Your task to perform on an android device: install app "Google Keep" Image 0: 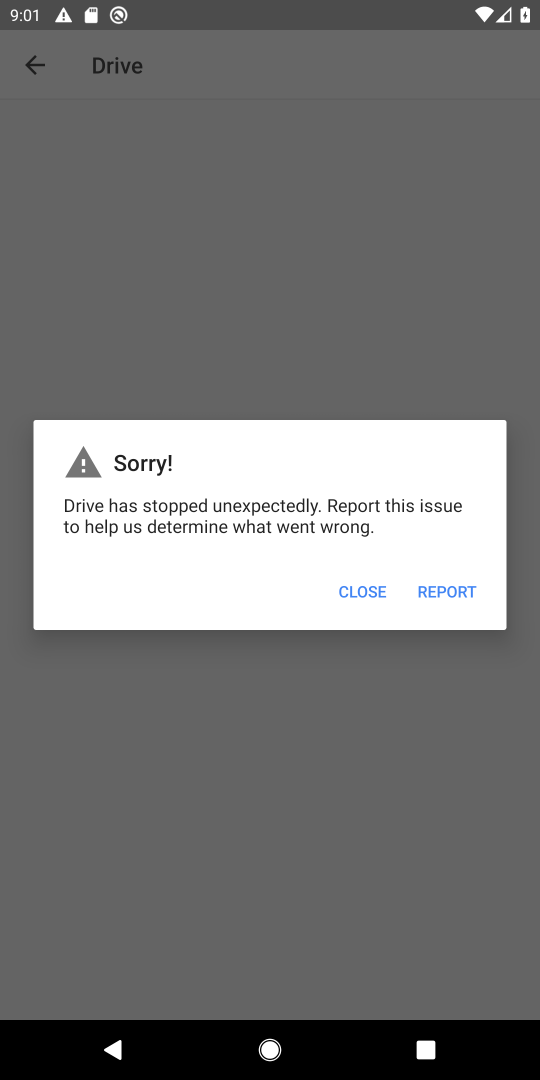
Step 0: press home button
Your task to perform on an android device: install app "Google Keep" Image 1: 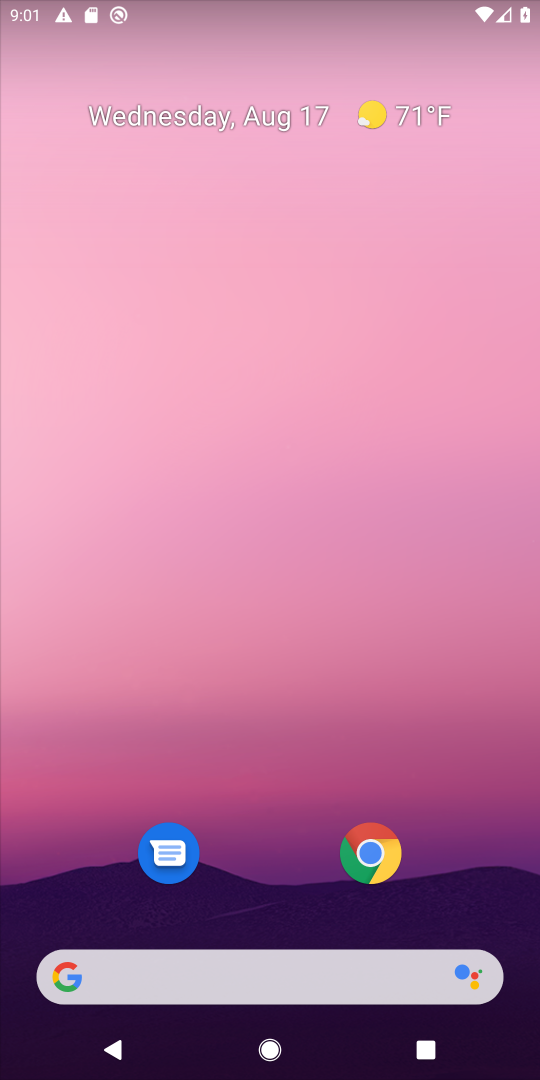
Step 1: drag from (258, 857) to (277, 156)
Your task to perform on an android device: install app "Google Keep" Image 2: 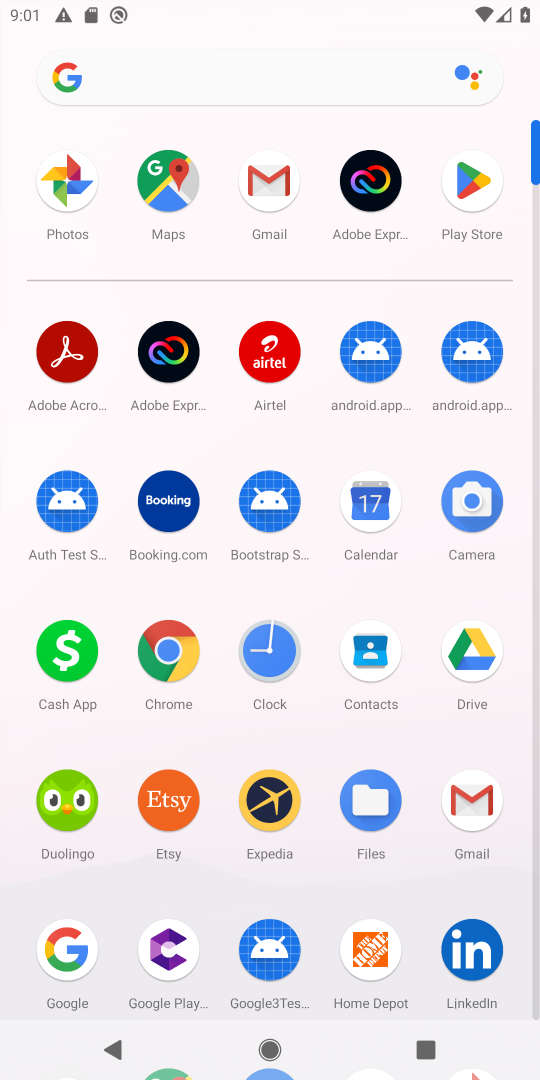
Step 2: click (473, 175)
Your task to perform on an android device: install app "Google Keep" Image 3: 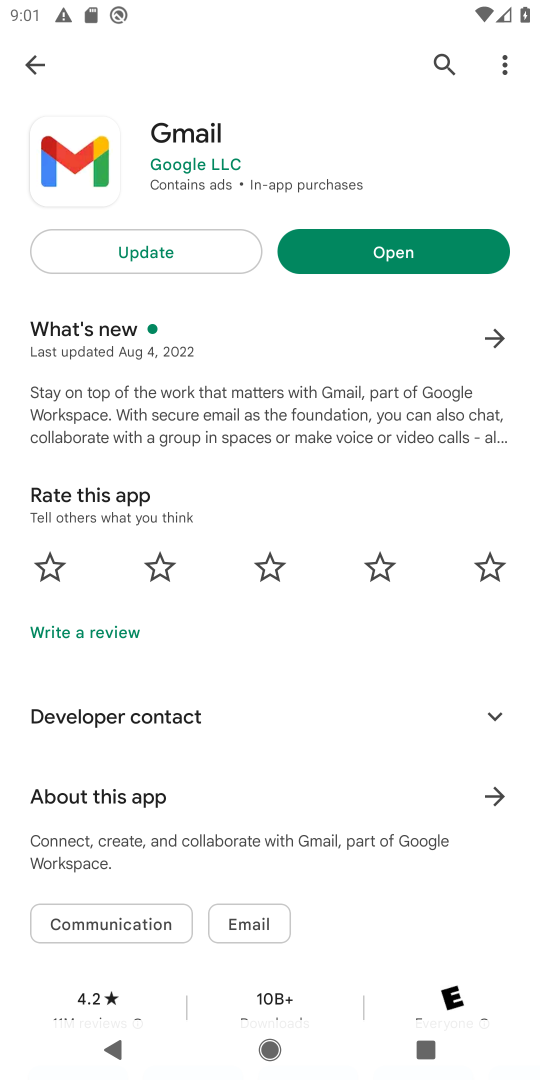
Step 3: click (447, 53)
Your task to perform on an android device: install app "Google Keep" Image 4: 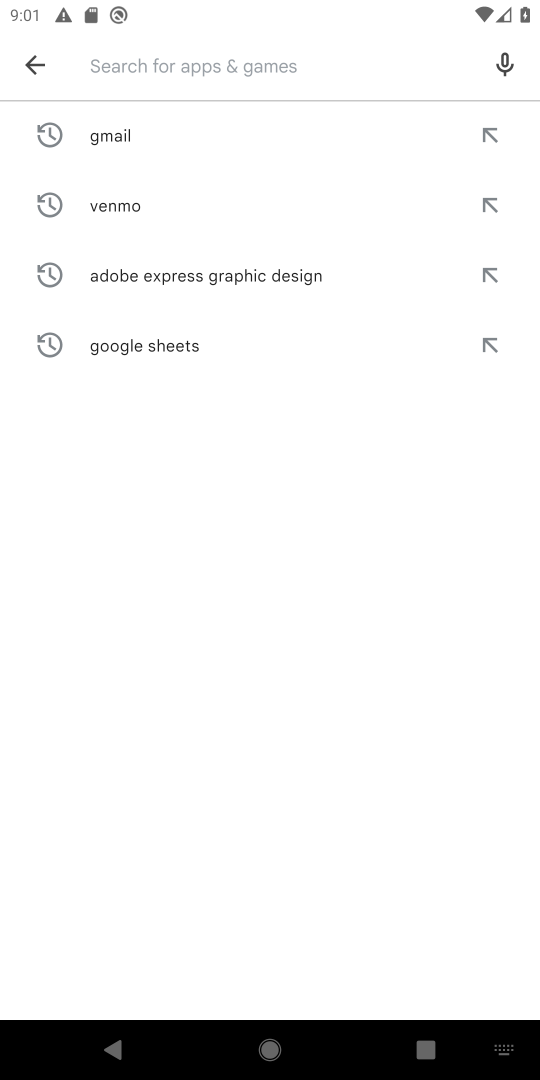
Step 4: type "Google Keep"
Your task to perform on an android device: install app "Google Keep" Image 5: 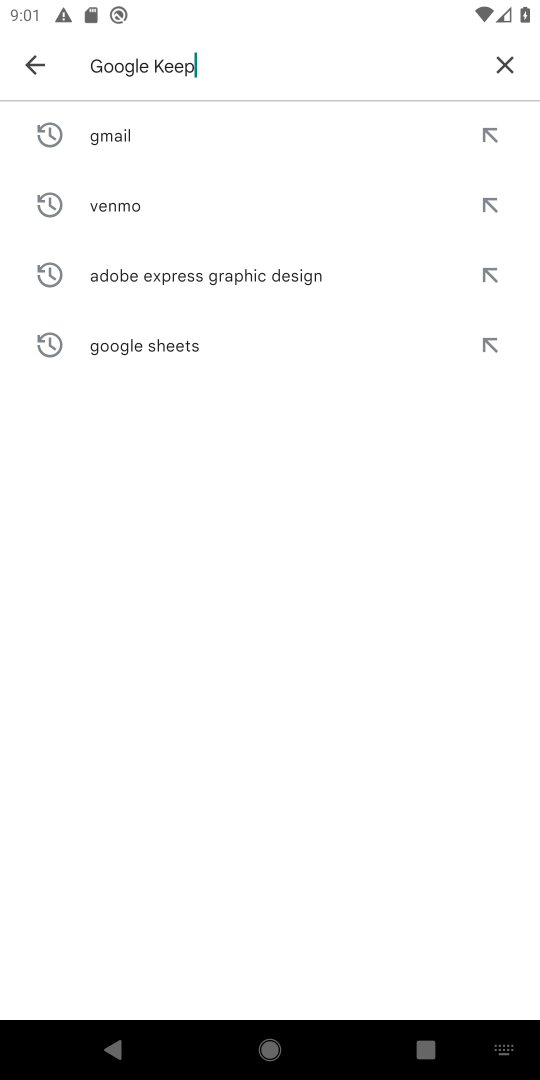
Step 5: type ""
Your task to perform on an android device: install app "Google Keep" Image 6: 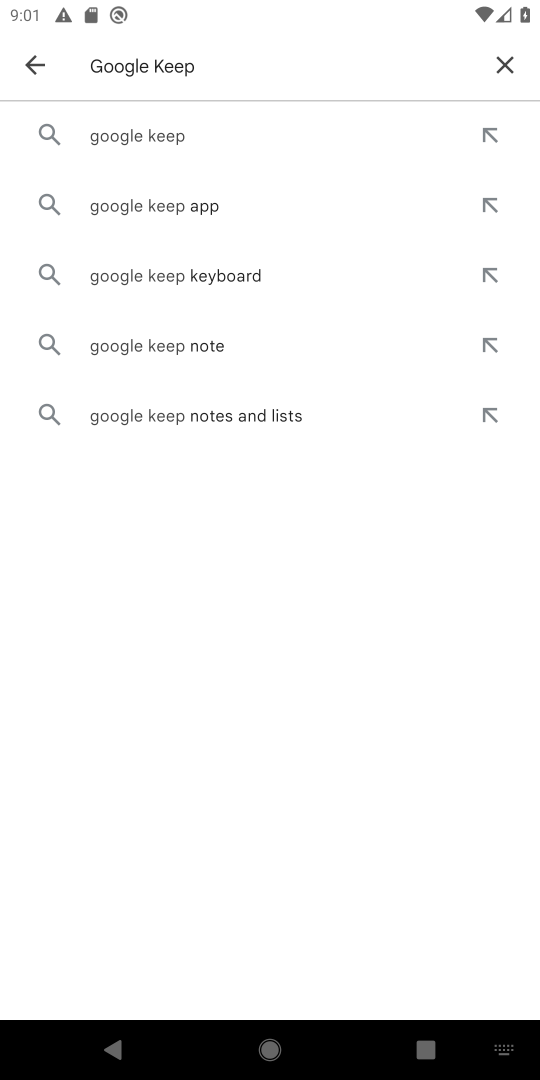
Step 6: click (212, 134)
Your task to perform on an android device: install app "Google Keep" Image 7: 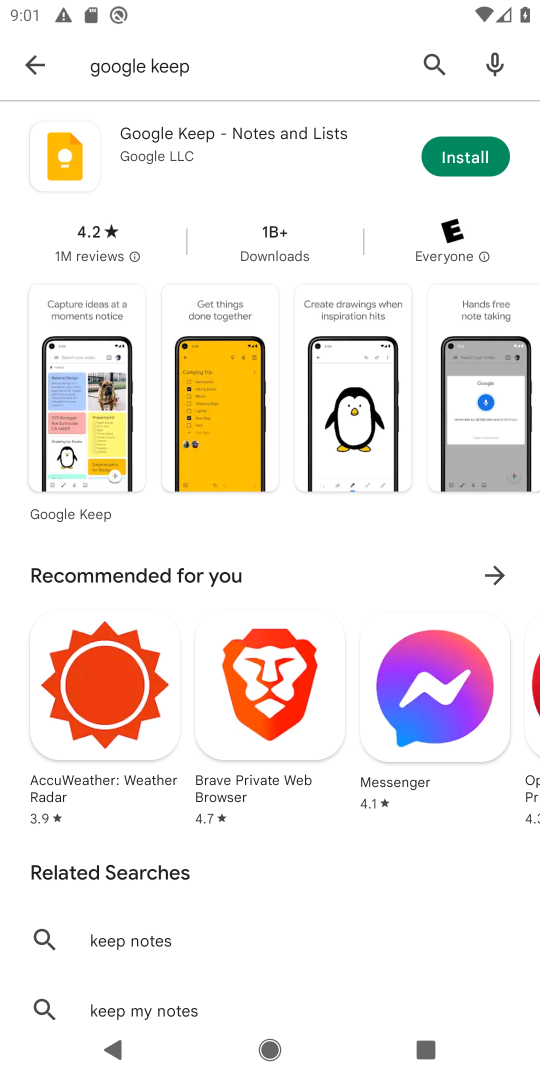
Step 7: click (491, 164)
Your task to perform on an android device: install app "Google Keep" Image 8: 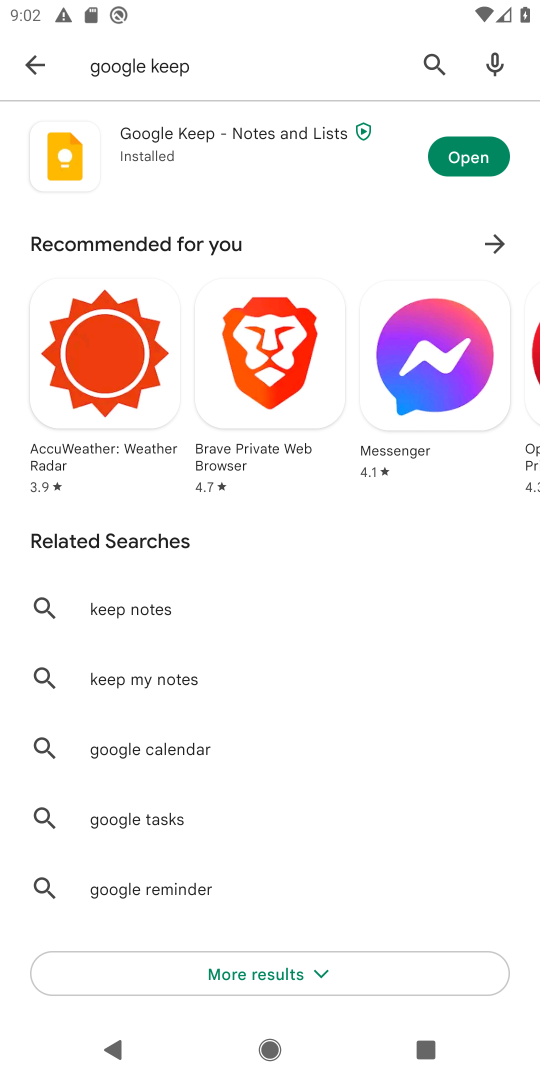
Step 8: task complete